Your task to perform on an android device: Check the weather Image 0: 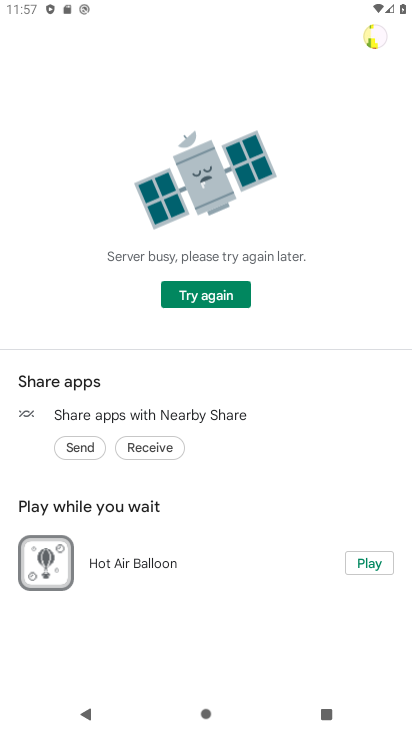
Step 0: press back button
Your task to perform on an android device: Check the weather Image 1: 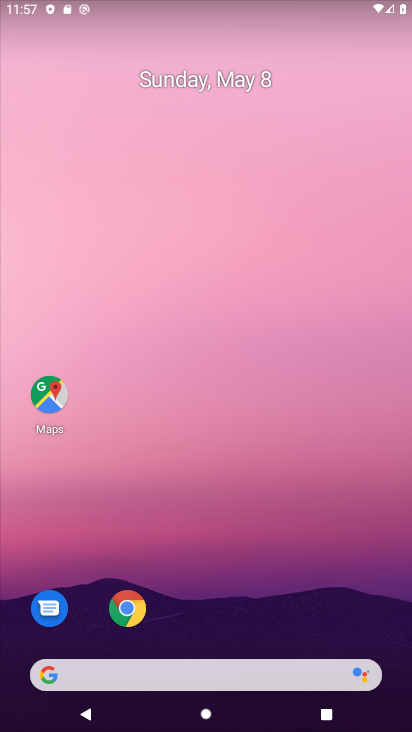
Step 1: click (180, 129)
Your task to perform on an android device: Check the weather Image 2: 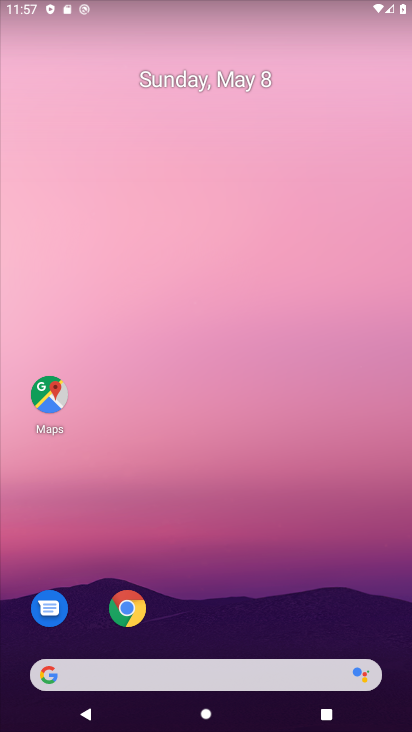
Step 2: click (148, 668)
Your task to perform on an android device: Check the weather Image 3: 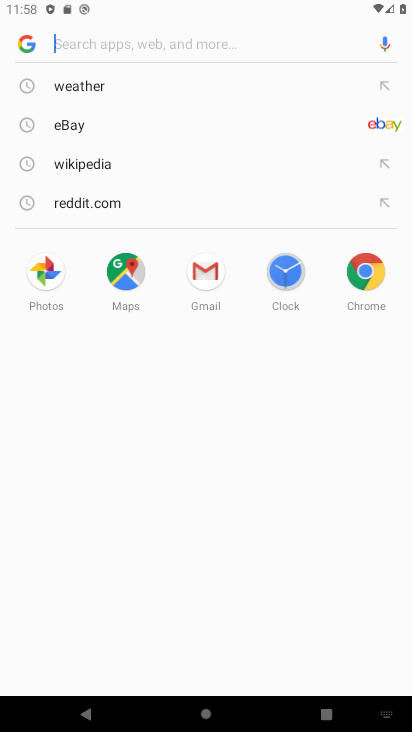
Step 3: click (132, 91)
Your task to perform on an android device: Check the weather Image 4: 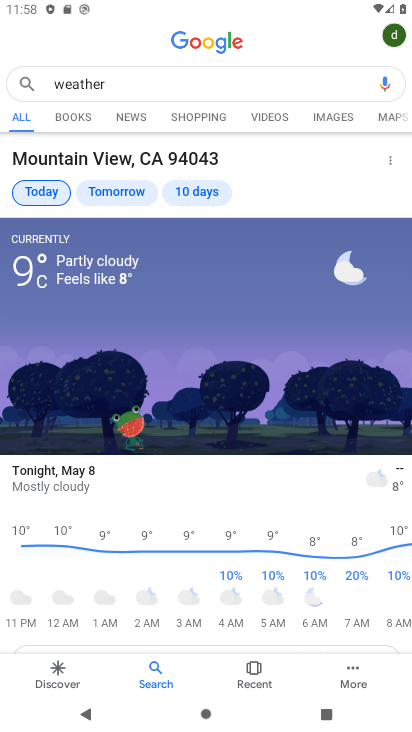
Step 4: task complete